Your task to perform on an android device: Search for sushi restaurants on Maps Image 0: 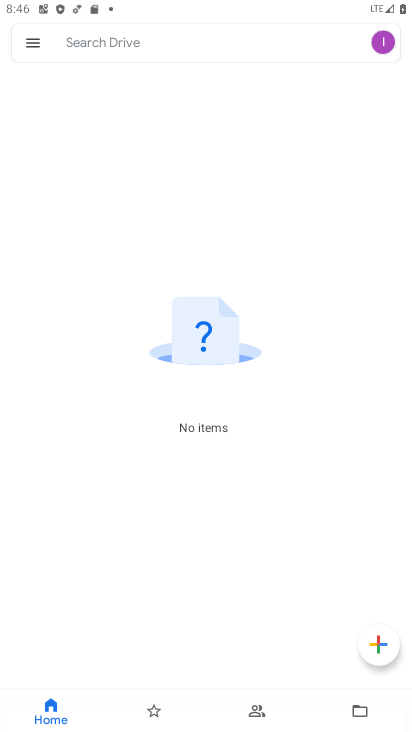
Step 0: press home button
Your task to perform on an android device: Search for sushi restaurants on Maps Image 1: 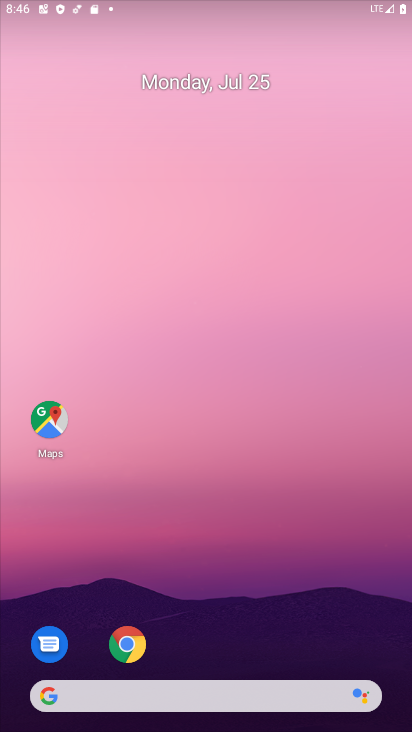
Step 1: drag from (235, 646) to (221, 120)
Your task to perform on an android device: Search for sushi restaurants on Maps Image 2: 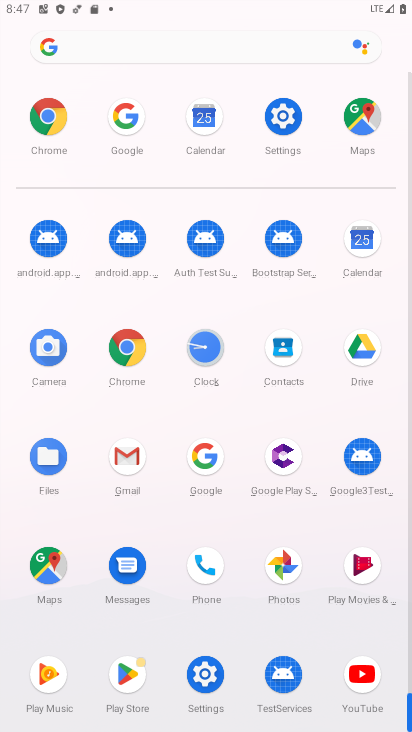
Step 2: click (50, 580)
Your task to perform on an android device: Search for sushi restaurants on Maps Image 3: 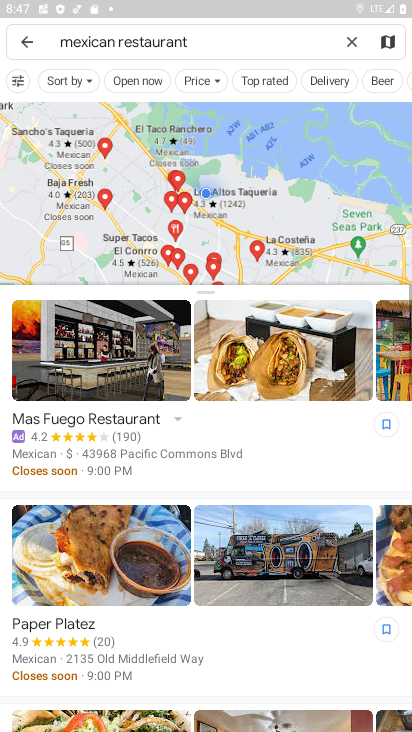
Step 3: click (348, 46)
Your task to perform on an android device: Search for sushi restaurants on Maps Image 4: 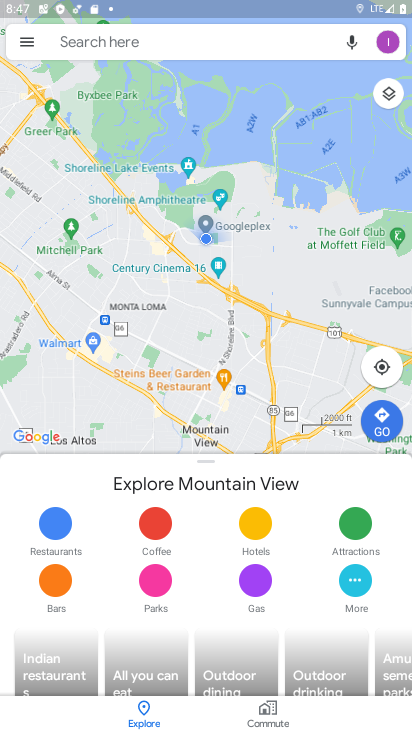
Step 4: click (175, 44)
Your task to perform on an android device: Search for sushi restaurants on Maps Image 5: 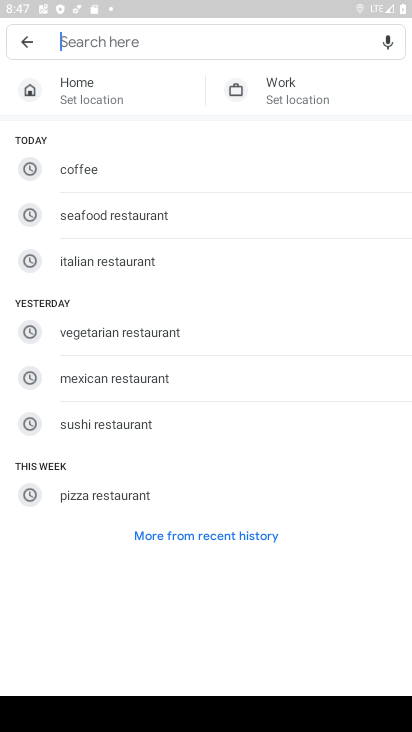
Step 5: click (136, 425)
Your task to perform on an android device: Search for sushi restaurants on Maps Image 6: 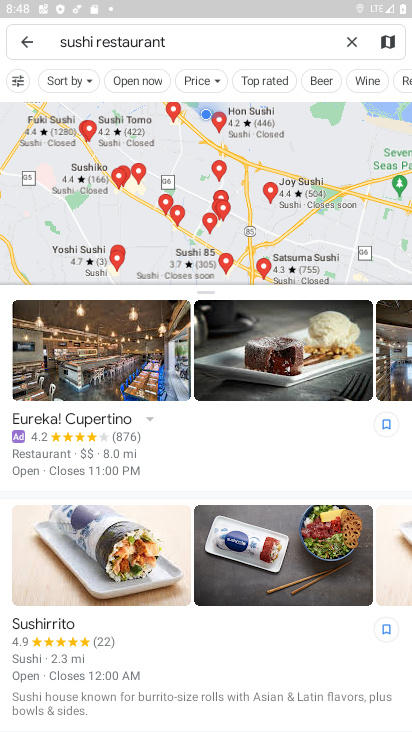
Step 6: task complete